Your task to perform on an android device: change the clock display to show seconds Image 0: 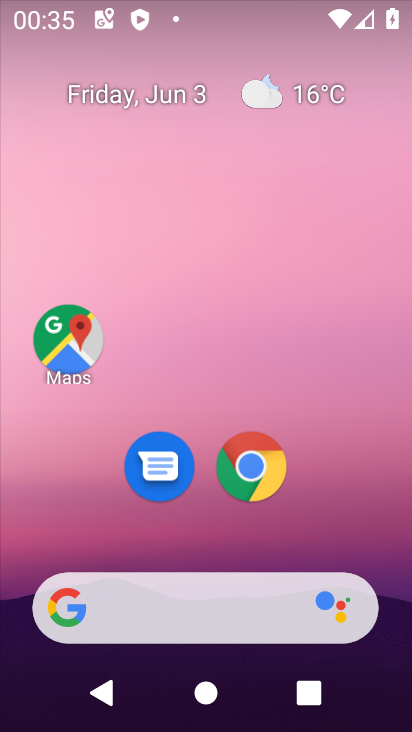
Step 0: drag from (203, 544) to (277, 130)
Your task to perform on an android device: change the clock display to show seconds Image 1: 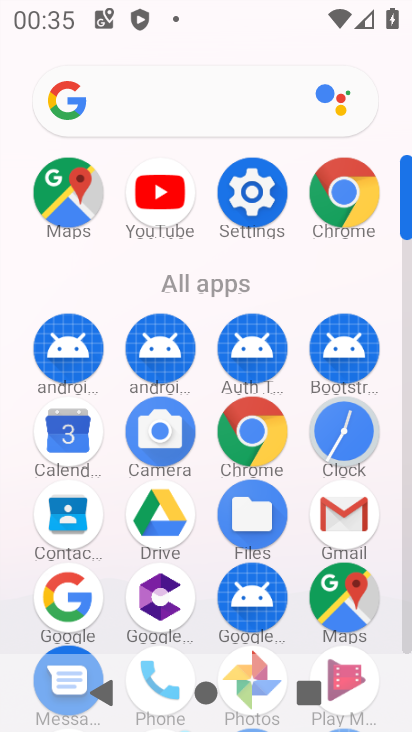
Step 1: click (327, 436)
Your task to perform on an android device: change the clock display to show seconds Image 2: 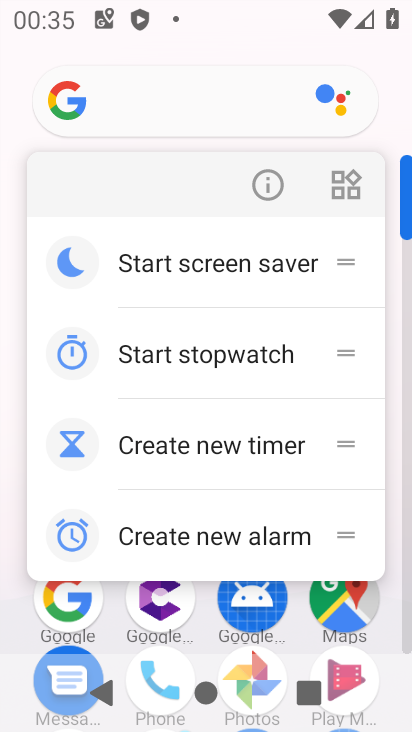
Step 2: press back button
Your task to perform on an android device: change the clock display to show seconds Image 3: 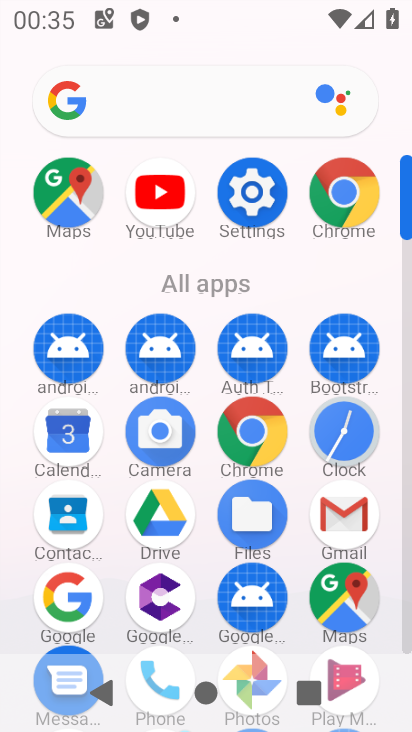
Step 3: click (349, 429)
Your task to perform on an android device: change the clock display to show seconds Image 4: 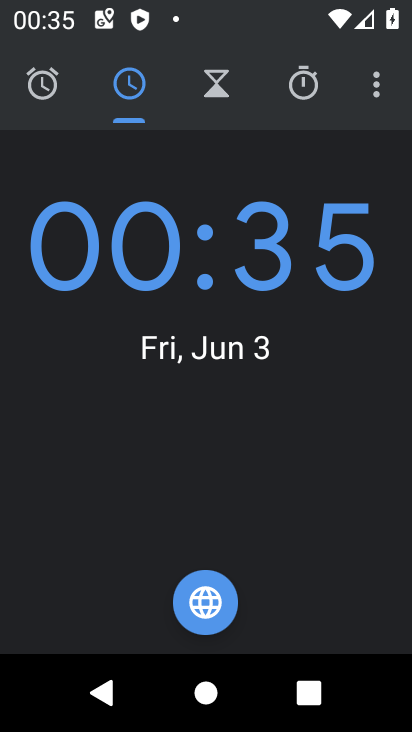
Step 4: click (366, 96)
Your task to perform on an android device: change the clock display to show seconds Image 5: 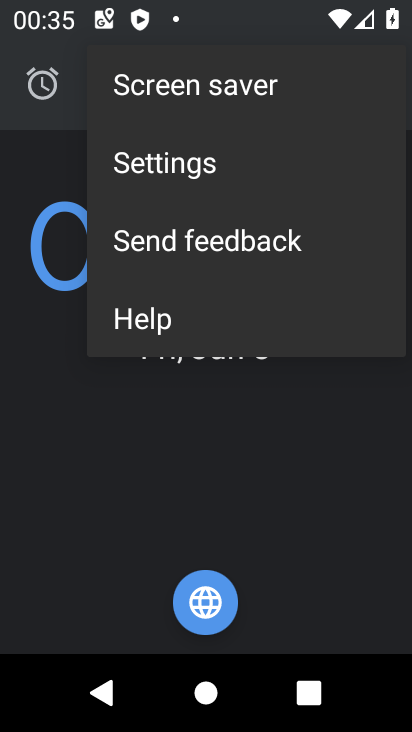
Step 5: click (326, 175)
Your task to perform on an android device: change the clock display to show seconds Image 6: 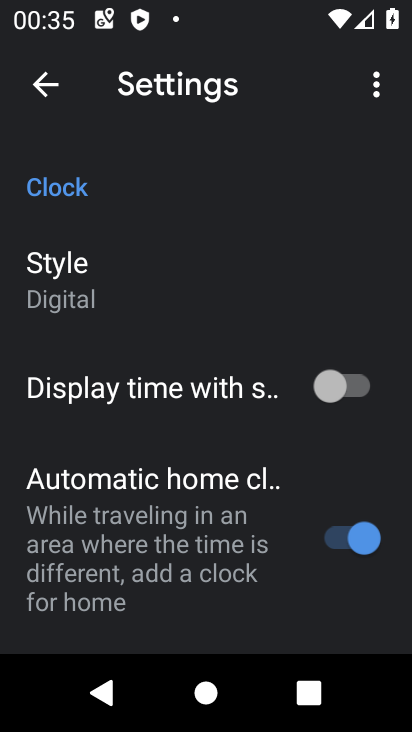
Step 6: click (360, 378)
Your task to perform on an android device: change the clock display to show seconds Image 7: 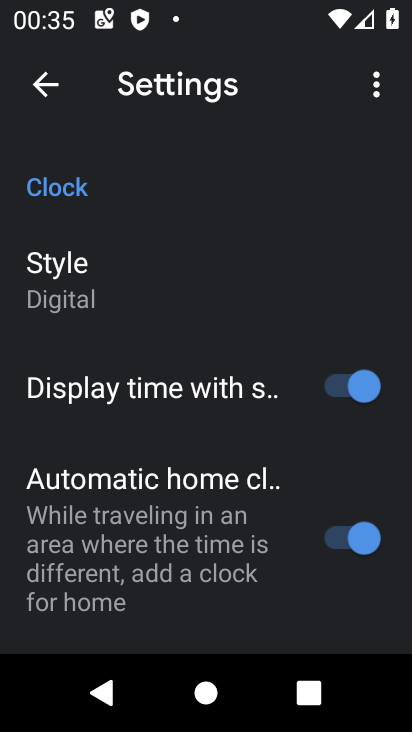
Step 7: task complete